Your task to perform on an android device: Go to Reddit.com Image 0: 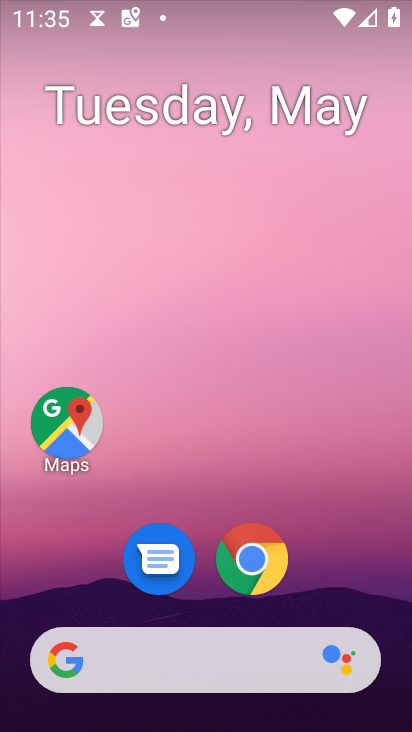
Step 0: drag from (338, 514) to (318, 78)
Your task to perform on an android device: Go to Reddit.com Image 1: 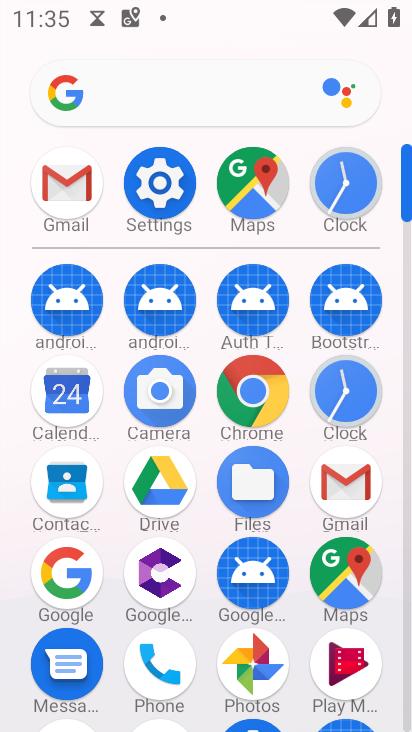
Step 1: click (272, 412)
Your task to perform on an android device: Go to Reddit.com Image 2: 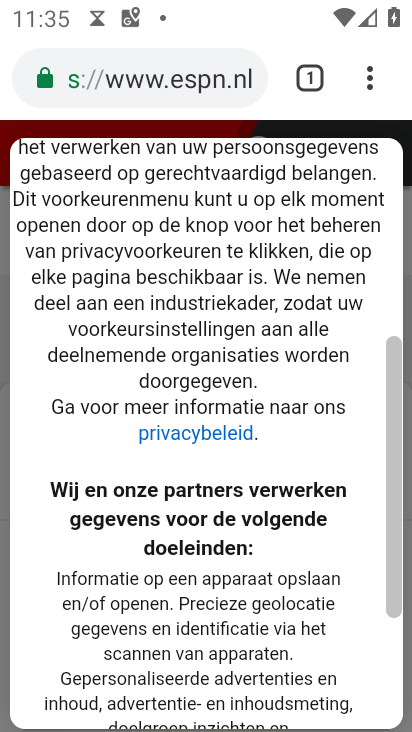
Step 2: click (182, 76)
Your task to perform on an android device: Go to Reddit.com Image 3: 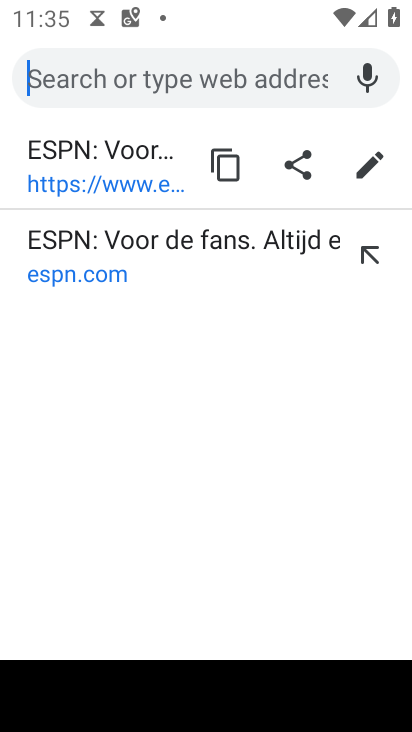
Step 3: type "reddit.com"
Your task to perform on an android device: Go to Reddit.com Image 4: 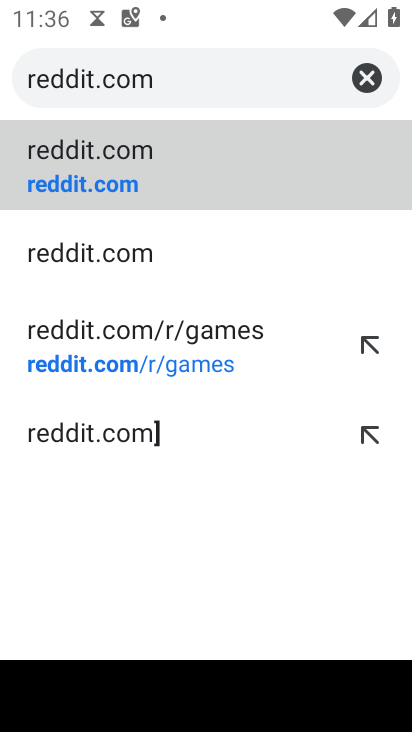
Step 4: click (134, 175)
Your task to perform on an android device: Go to Reddit.com Image 5: 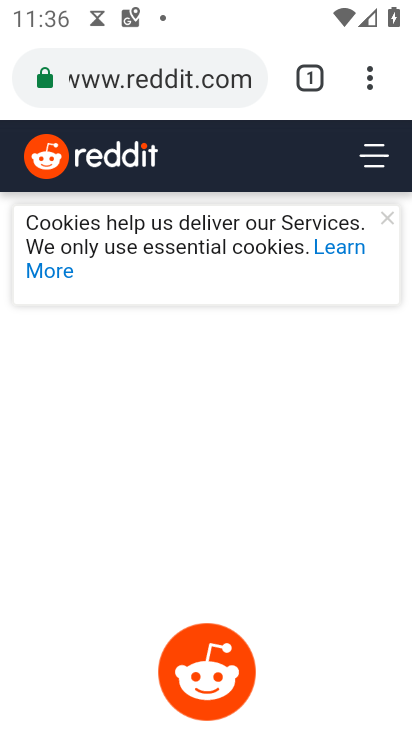
Step 5: task complete